Your task to perform on an android device: check out phone information Image 0: 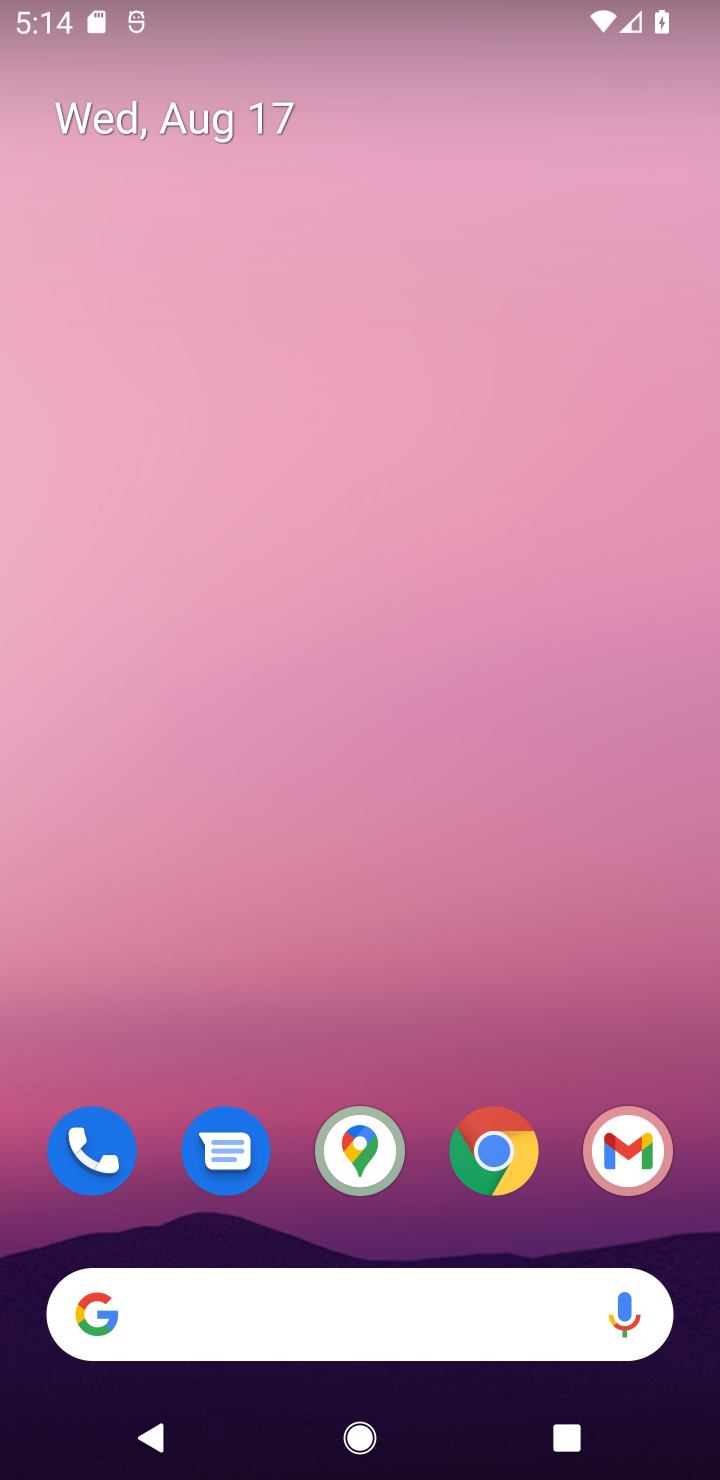
Step 0: drag from (569, 1229) to (514, 202)
Your task to perform on an android device: check out phone information Image 1: 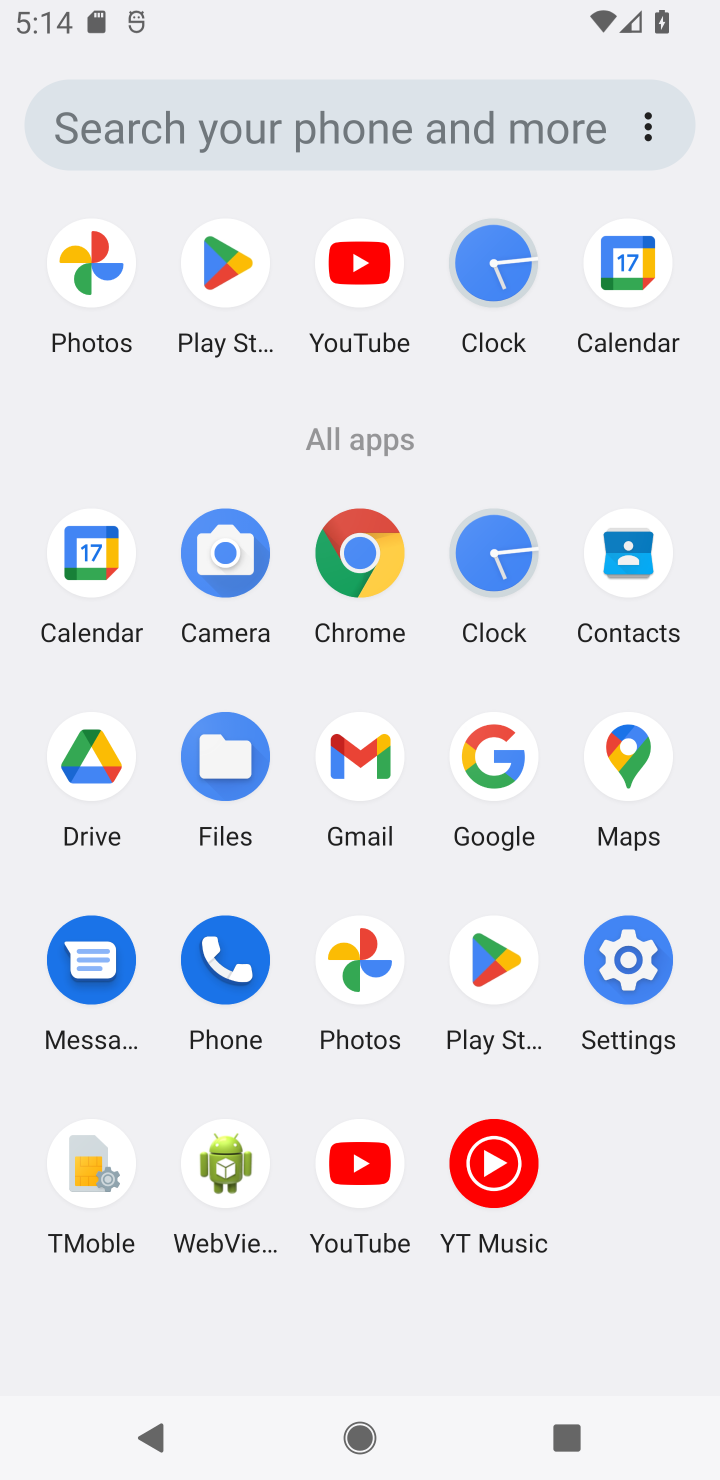
Step 1: click (632, 963)
Your task to perform on an android device: check out phone information Image 2: 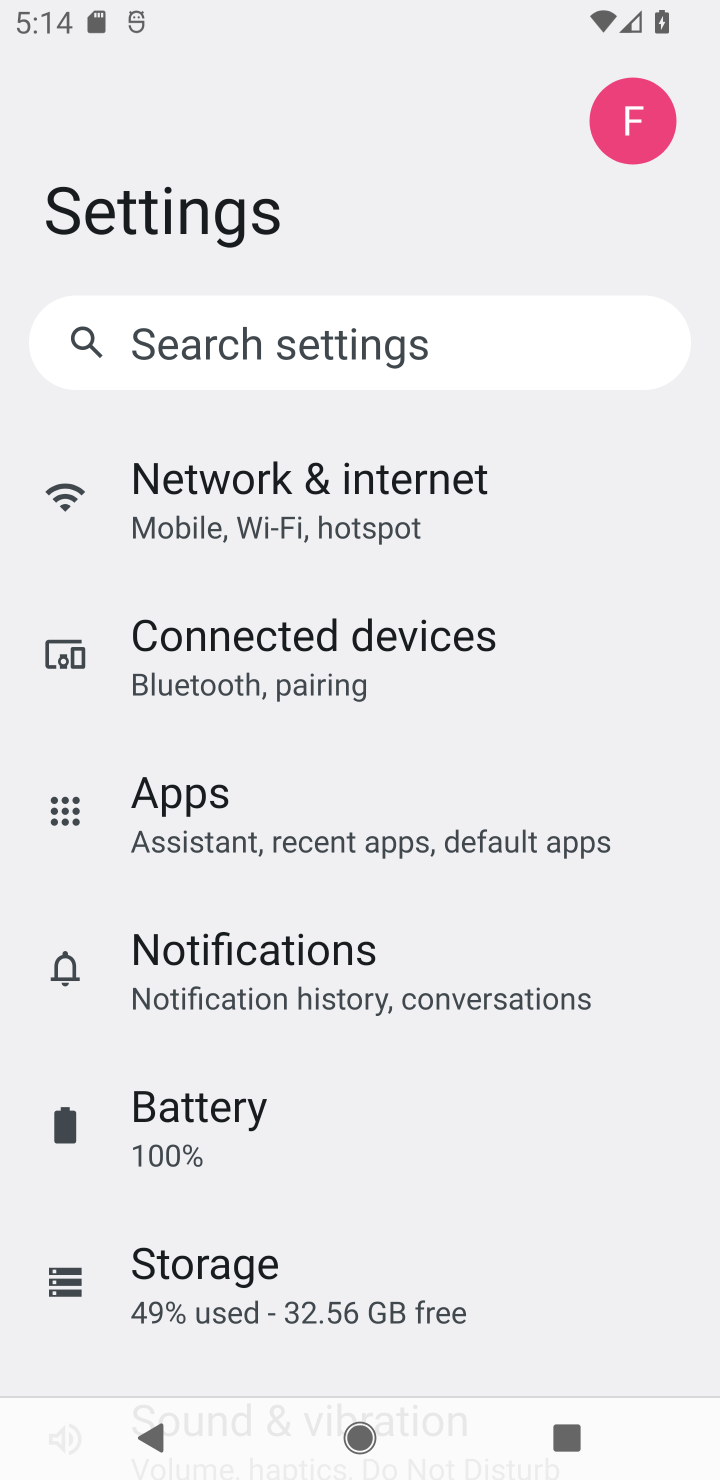
Step 2: drag from (556, 1288) to (571, 384)
Your task to perform on an android device: check out phone information Image 3: 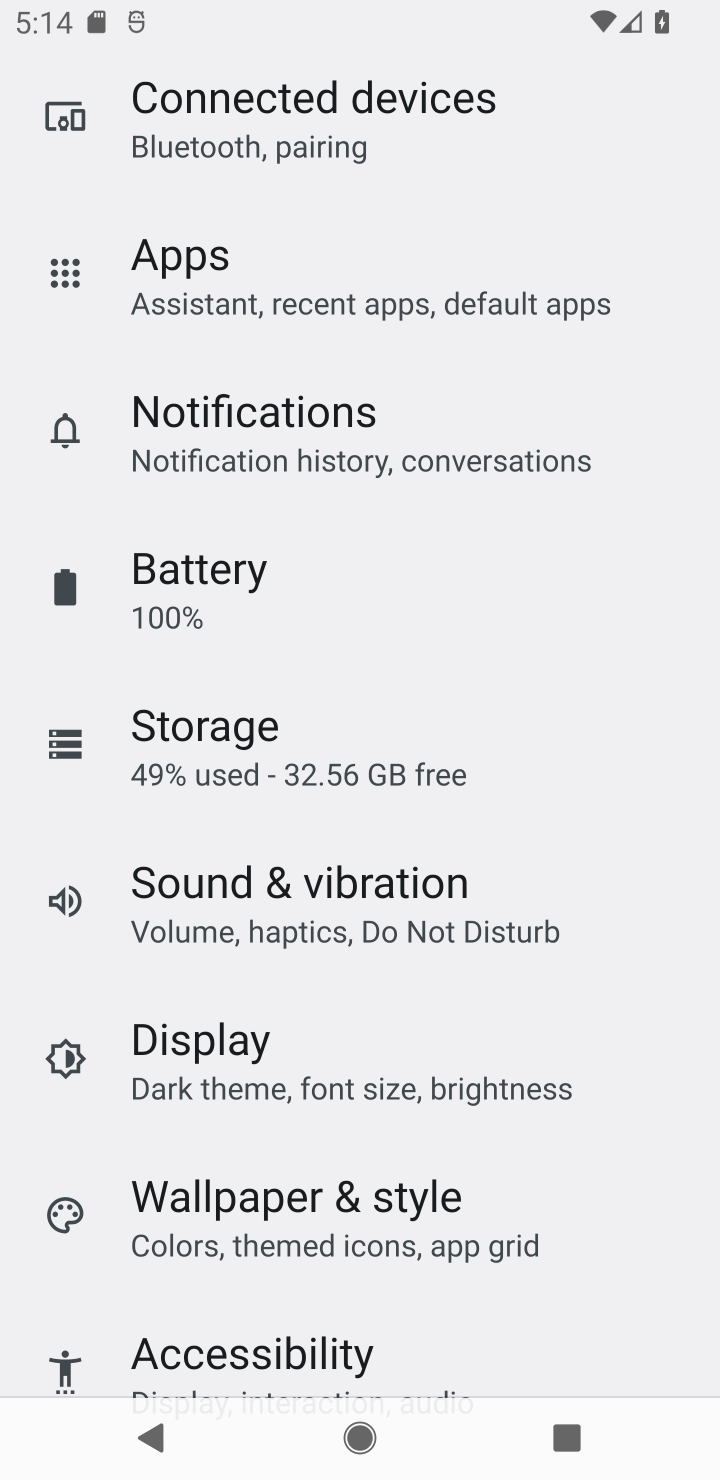
Step 3: drag from (579, 1337) to (579, 394)
Your task to perform on an android device: check out phone information Image 4: 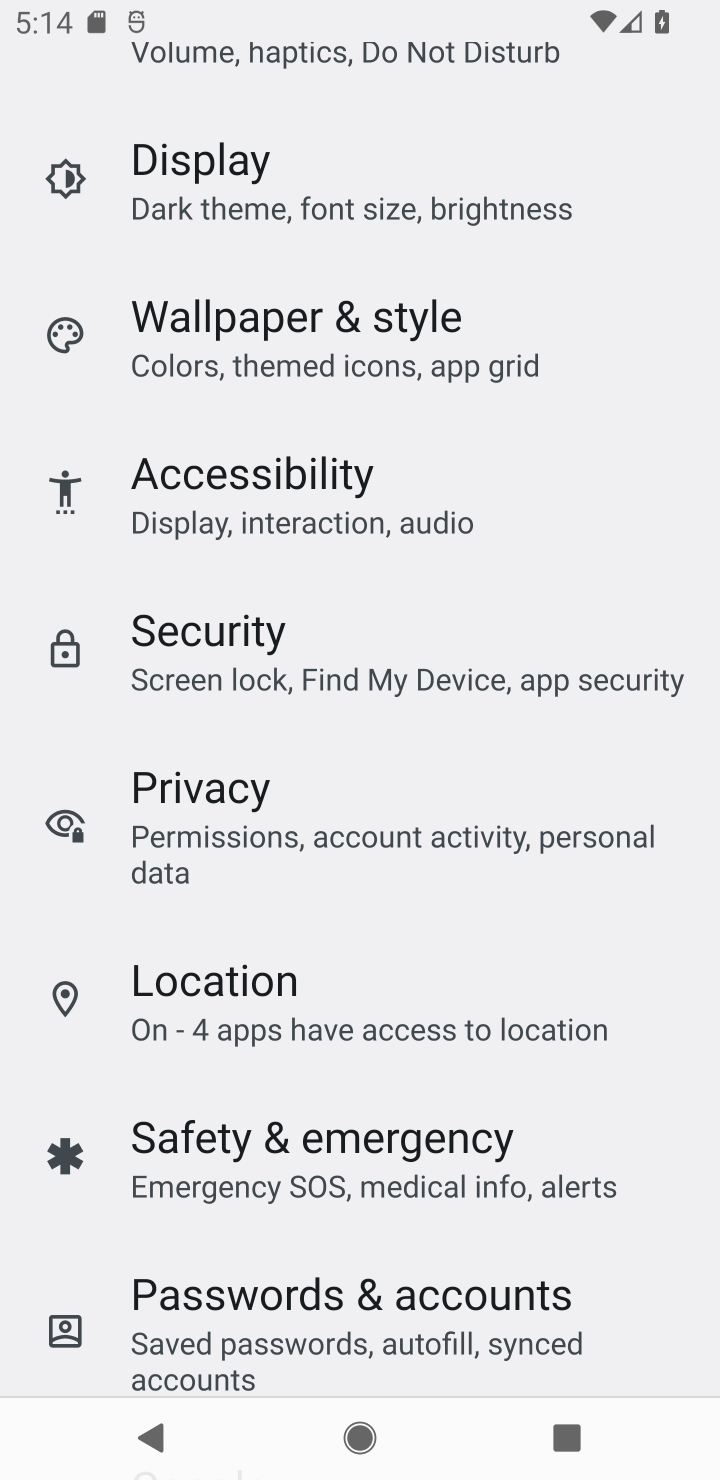
Step 4: drag from (614, 1313) to (604, 294)
Your task to perform on an android device: check out phone information Image 5: 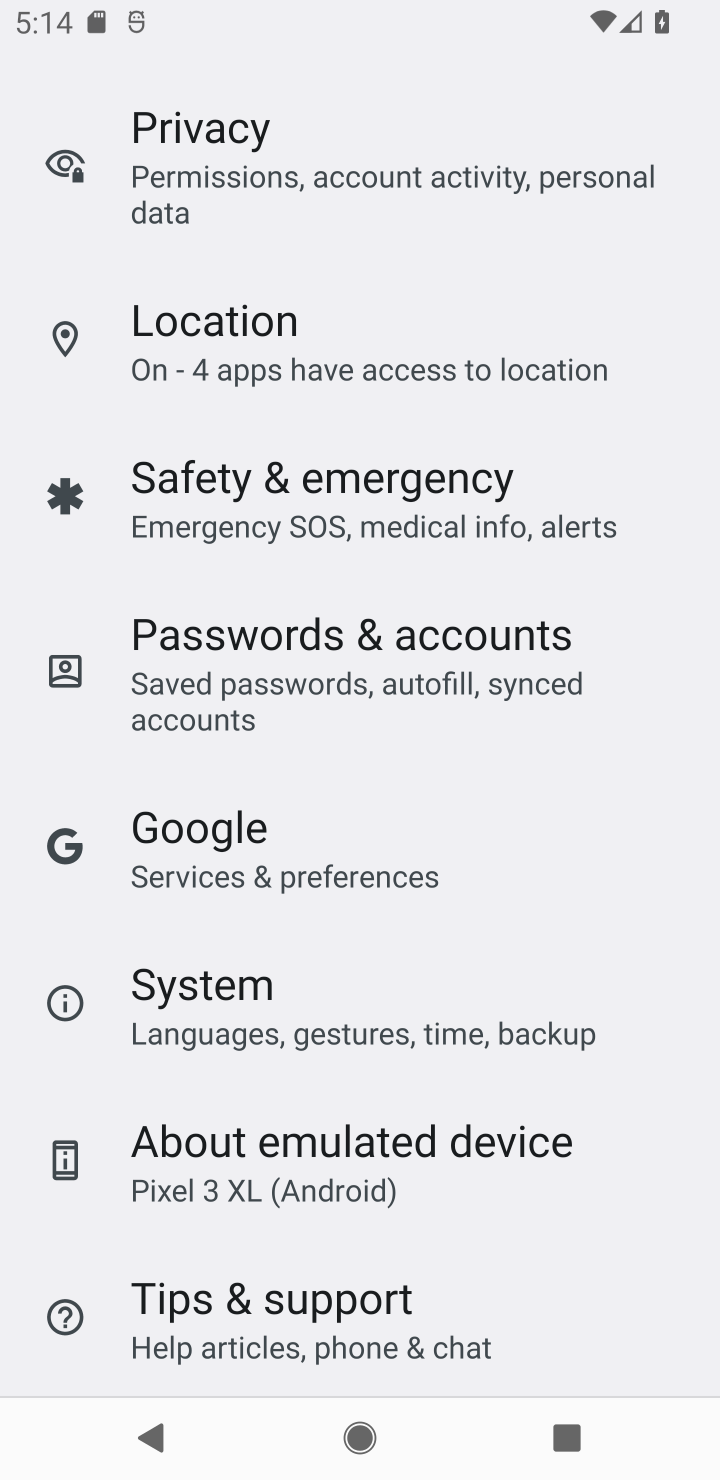
Step 5: click (263, 1136)
Your task to perform on an android device: check out phone information Image 6: 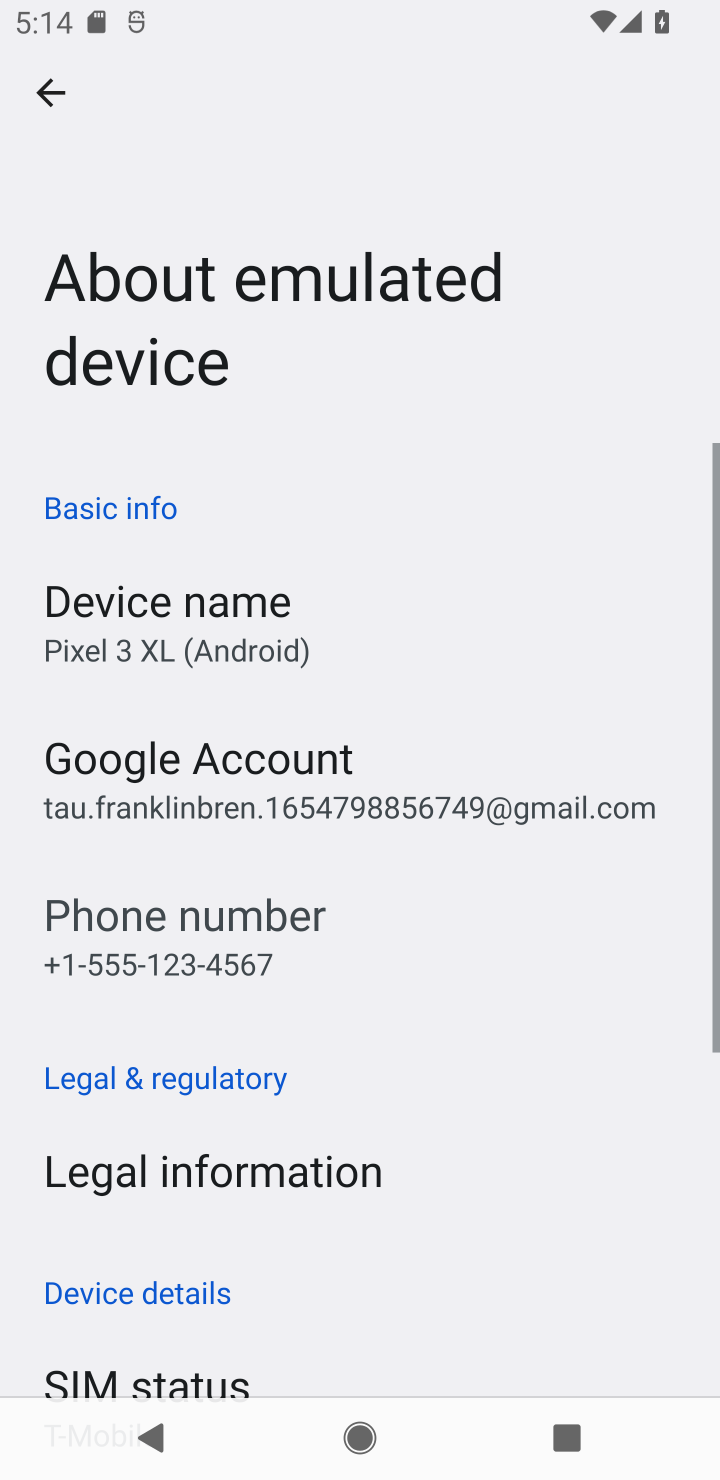
Step 6: task complete